Your task to perform on an android device: uninstall "Messages" Image 0: 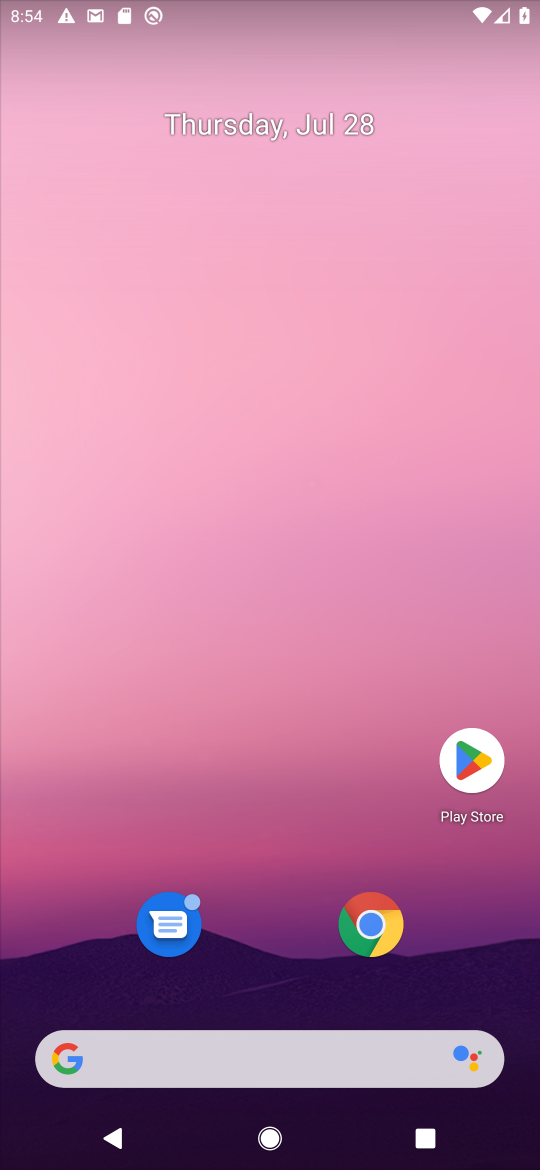
Step 0: click (478, 756)
Your task to perform on an android device: uninstall "Messages" Image 1: 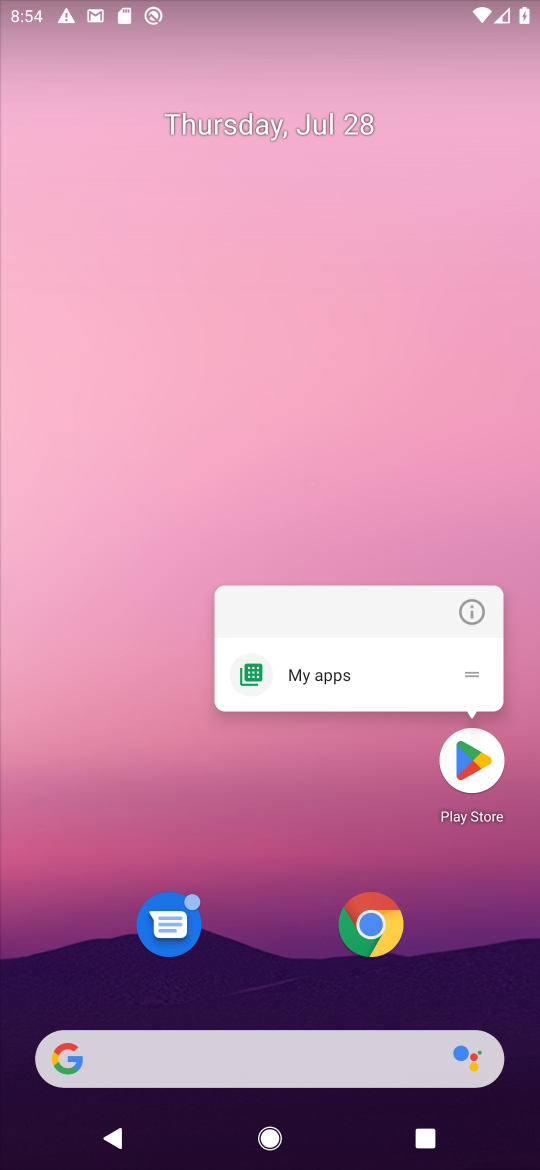
Step 1: click (484, 761)
Your task to perform on an android device: uninstall "Messages" Image 2: 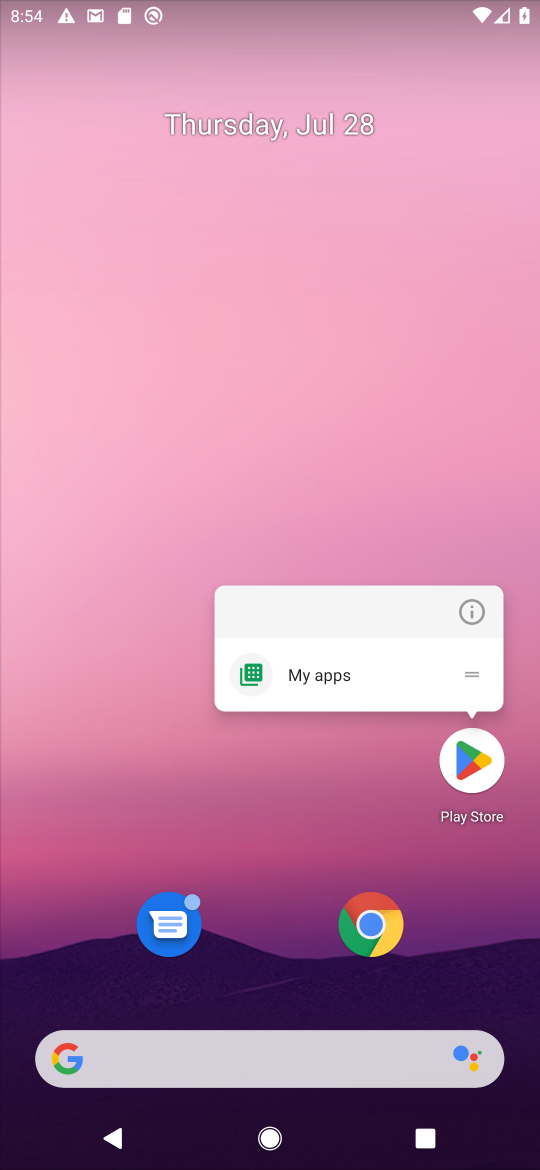
Step 2: click (466, 762)
Your task to perform on an android device: uninstall "Messages" Image 3: 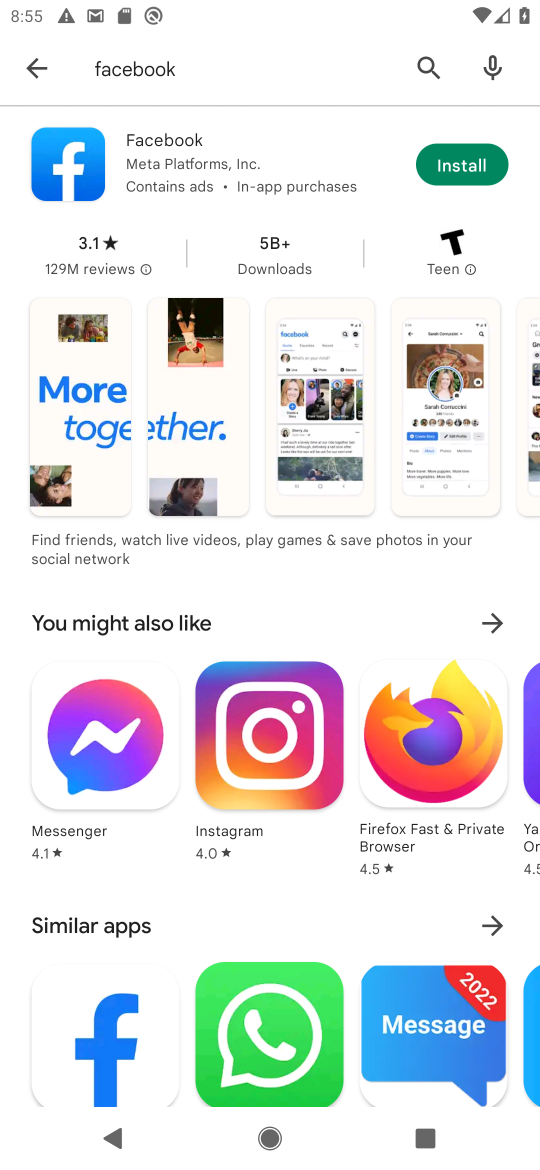
Step 3: click (421, 61)
Your task to perform on an android device: uninstall "Messages" Image 4: 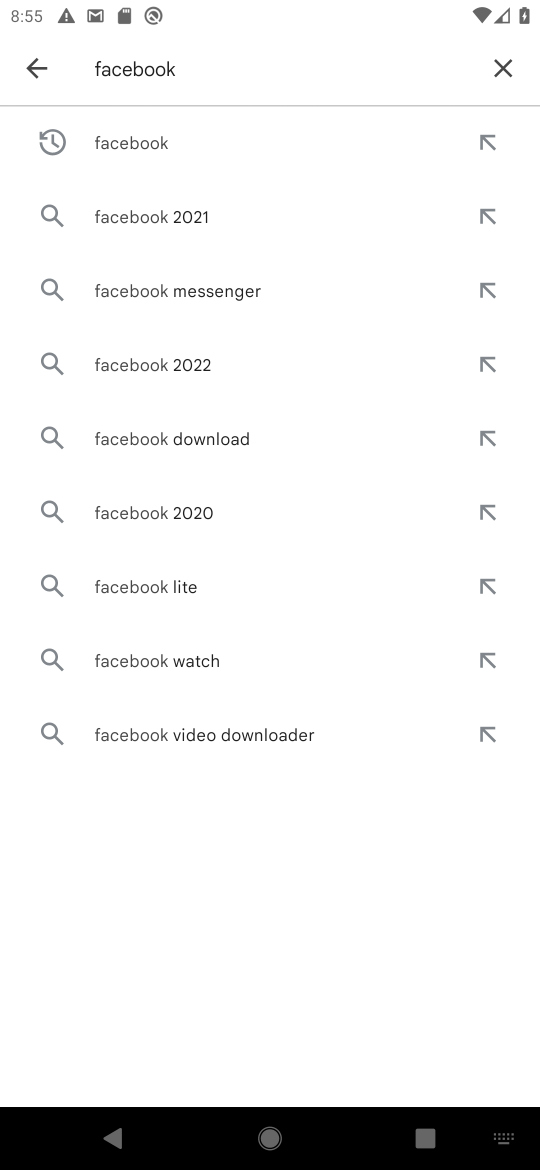
Step 4: click (502, 61)
Your task to perform on an android device: uninstall "Messages" Image 5: 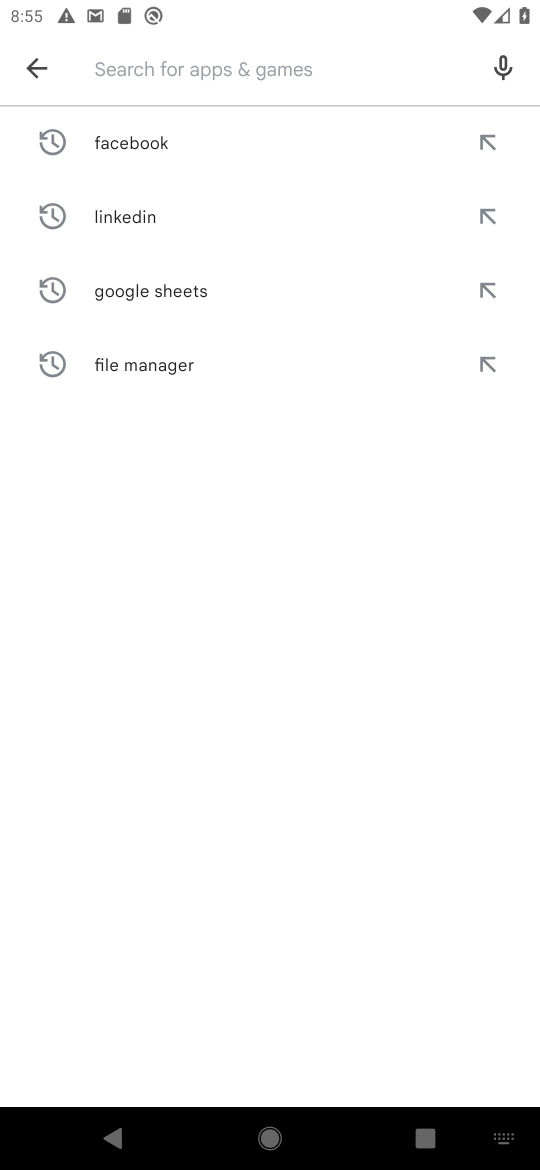
Step 5: type "Messages"
Your task to perform on an android device: uninstall "Messages" Image 6: 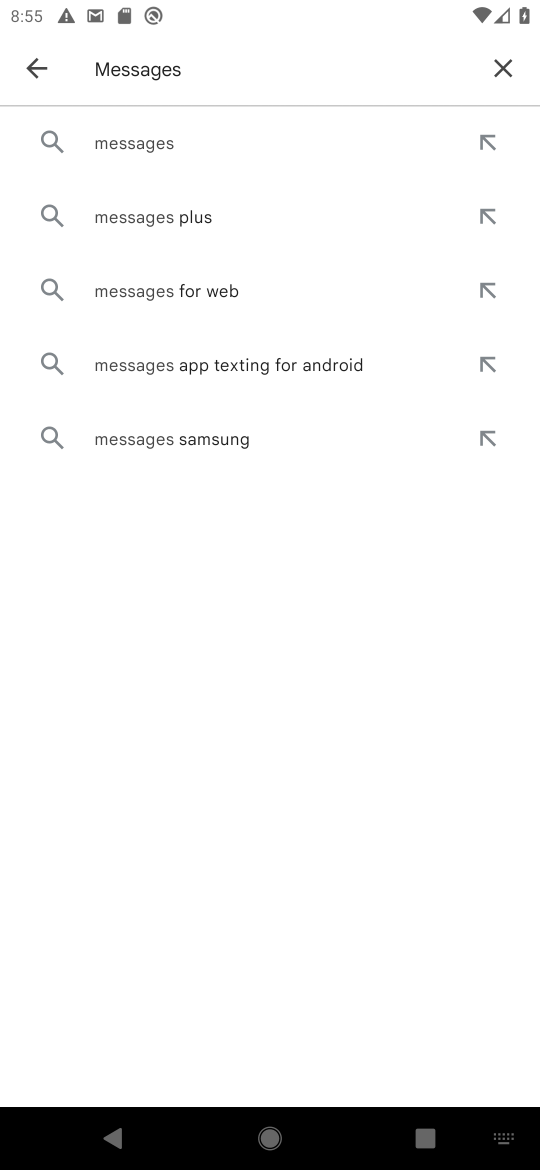
Step 6: click (134, 131)
Your task to perform on an android device: uninstall "Messages" Image 7: 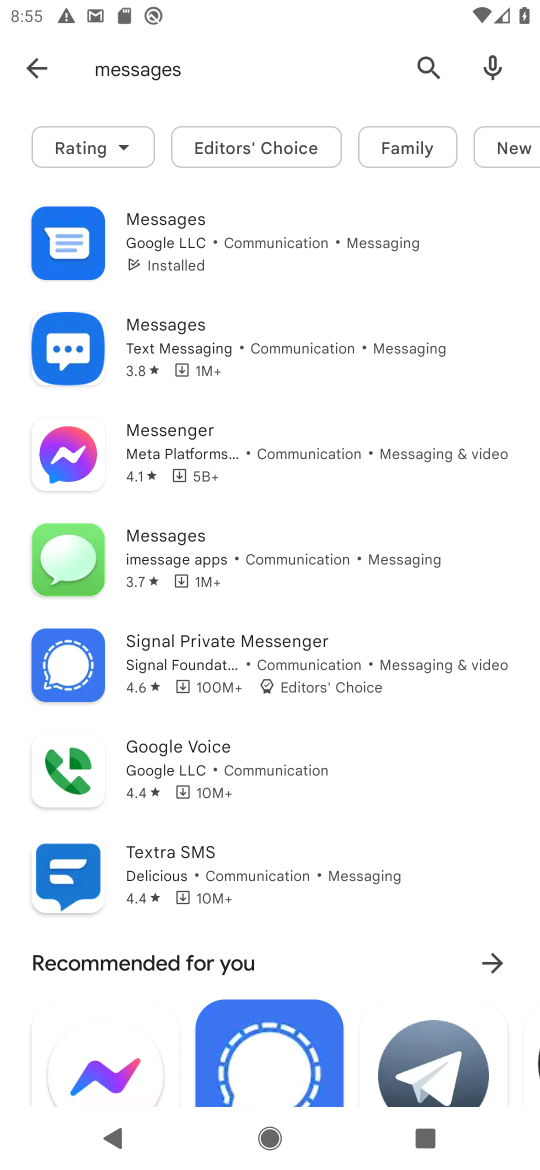
Step 7: click (191, 233)
Your task to perform on an android device: uninstall "Messages" Image 8: 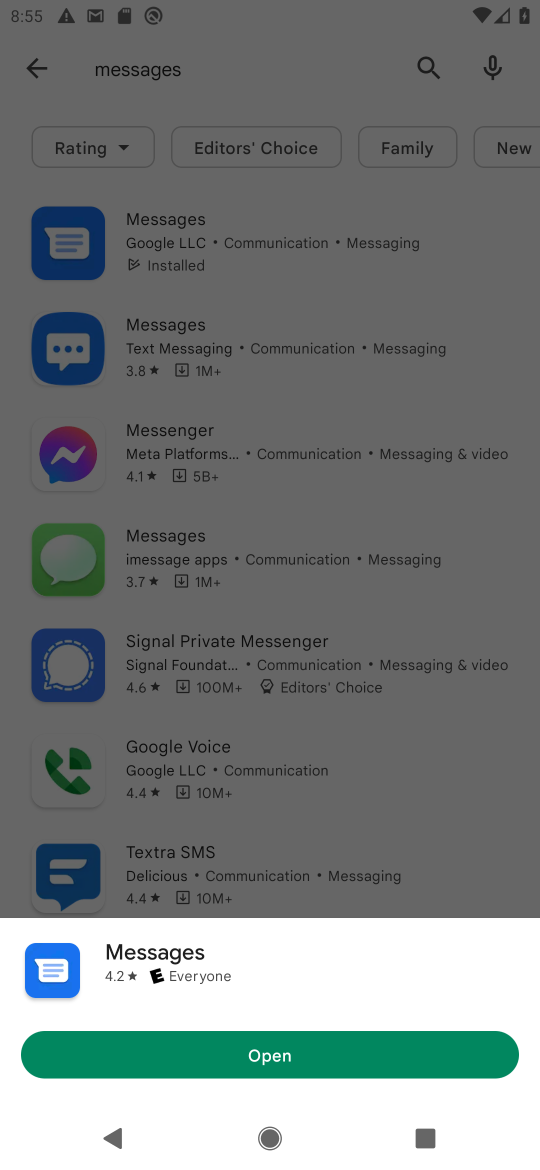
Step 8: task complete